Your task to perform on an android device: turn off sleep mode Image 0: 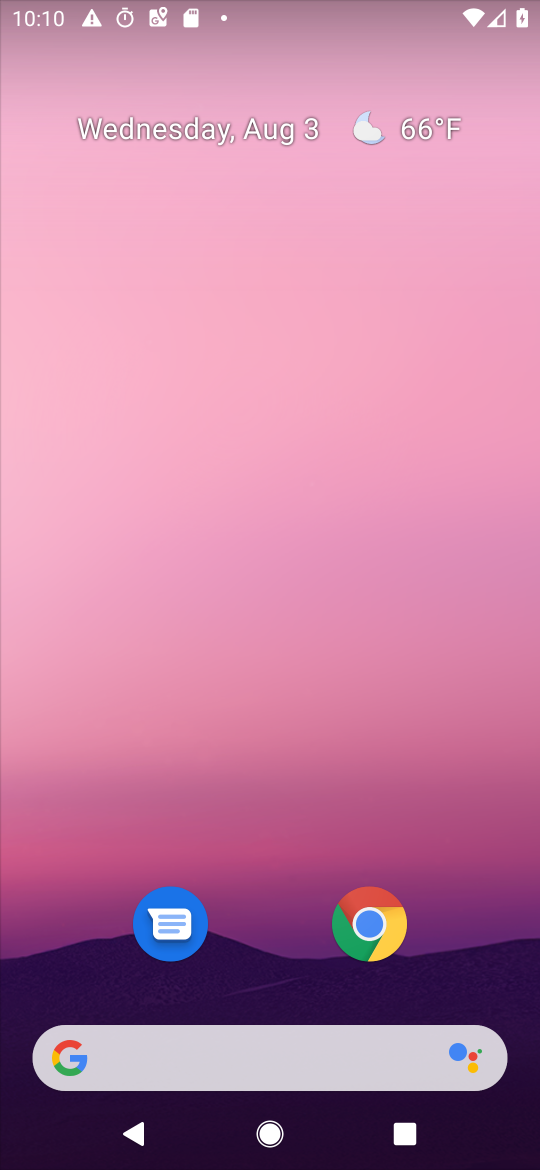
Step 0: press home button
Your task to perform on an android device: turn off sleep mode Image 1: 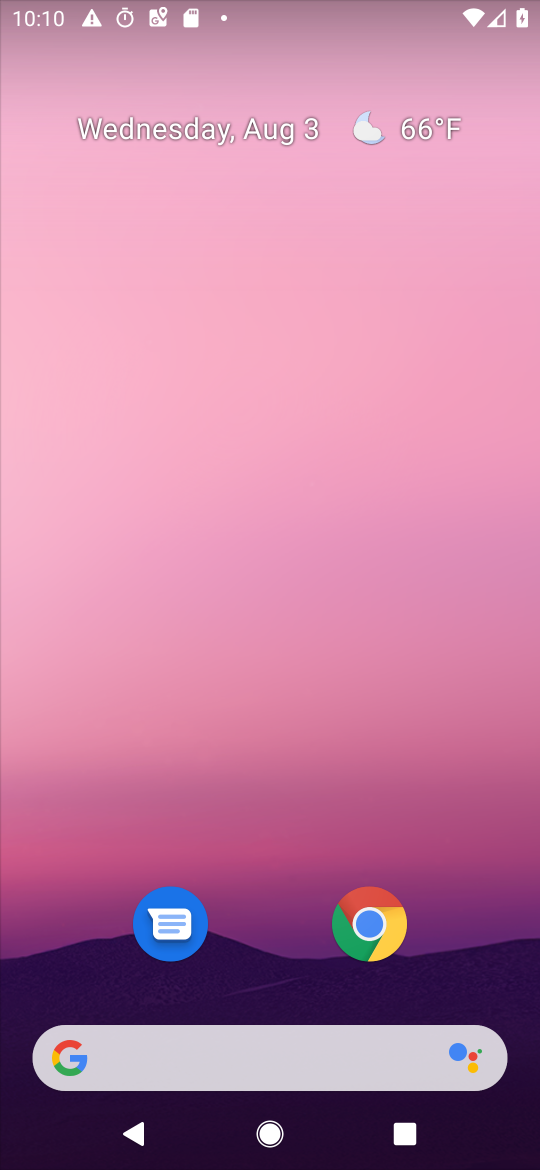
Step 1: drag from (269, 950) to (312, 13)
Your task to perform on an android device: turn off sleep mode Image 2: 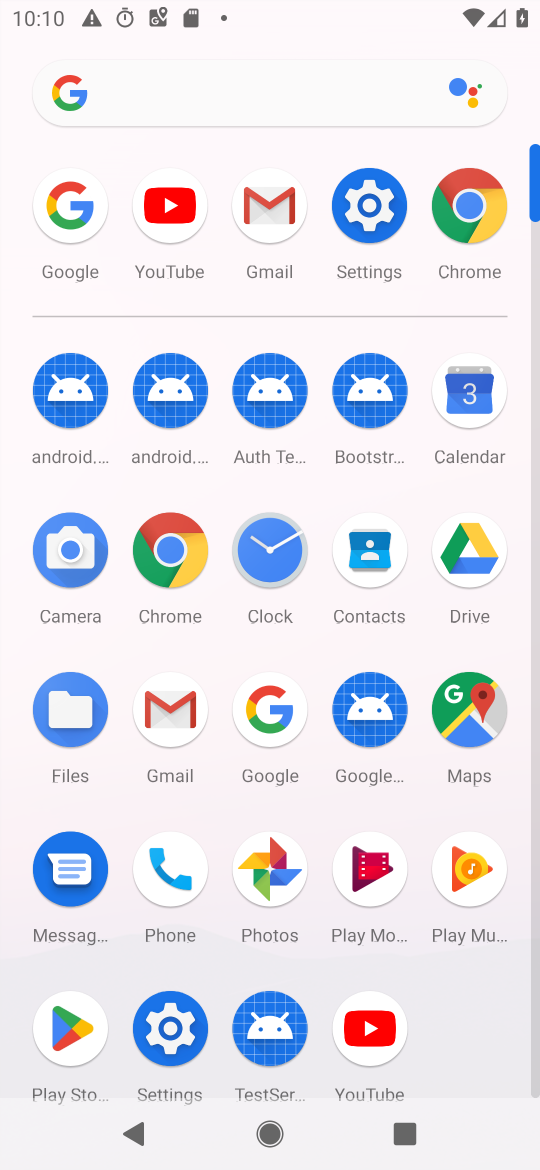
Step 2: click (370, 196)
Your task to perform on an android device: turn off sleep mode Image 3: 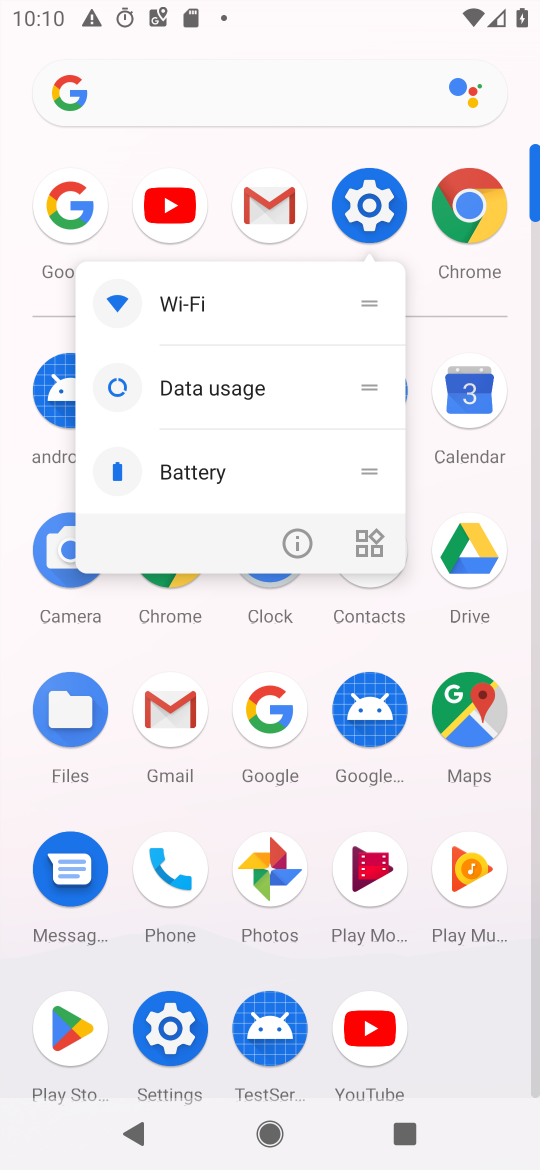
Step 3: click (367, 197)
Your task to perform on an android device: turn off sleep mode Image 4: 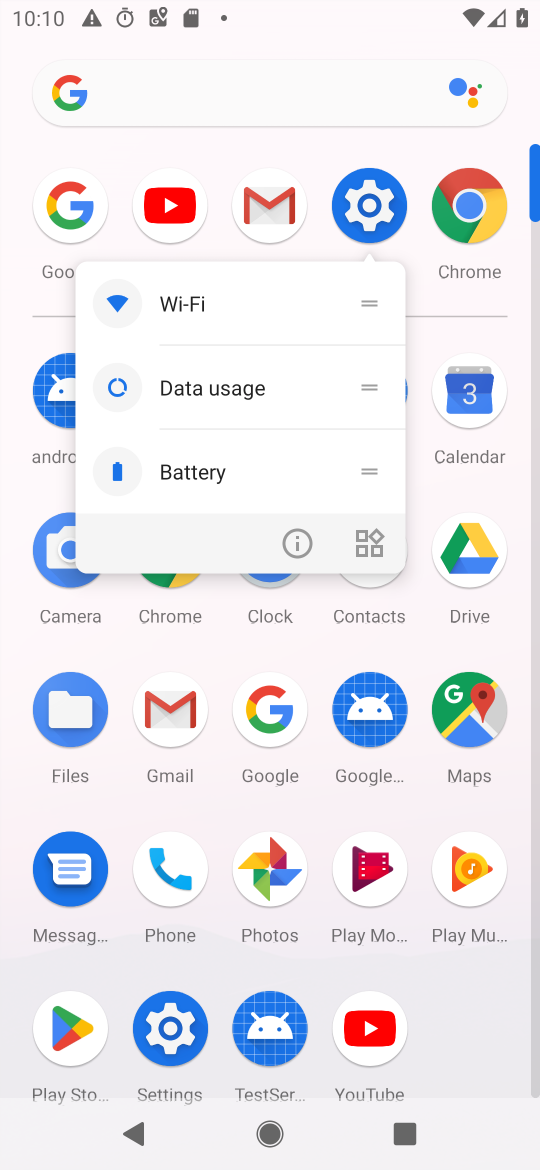
Step 4: click (367, 197)
Your task to perform on an android device: turn off sleep mode Image 5: 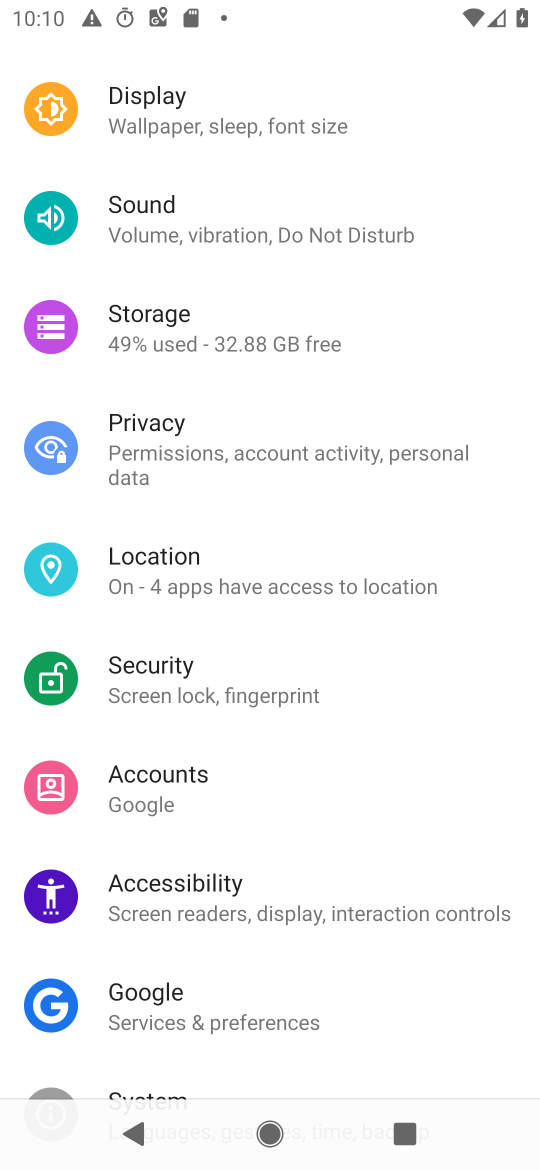
Step 5: click (204, 103)
Your task to perform on an android device: turn off sleep mode Image 6: 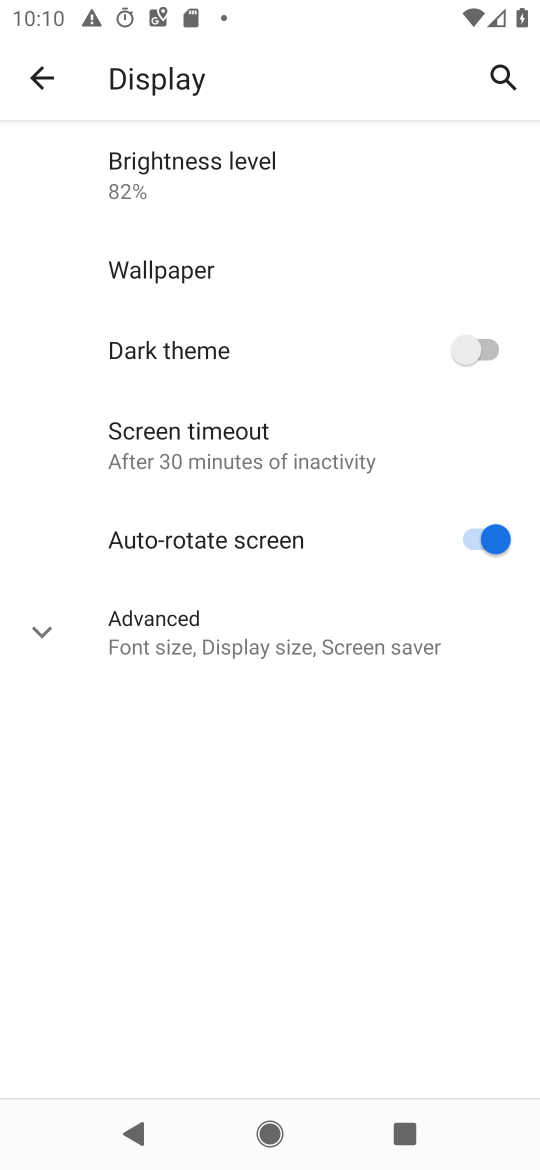
Step 6: click (47, 616)
Your task to perform on an android device: turn off sleep mode Image 7: 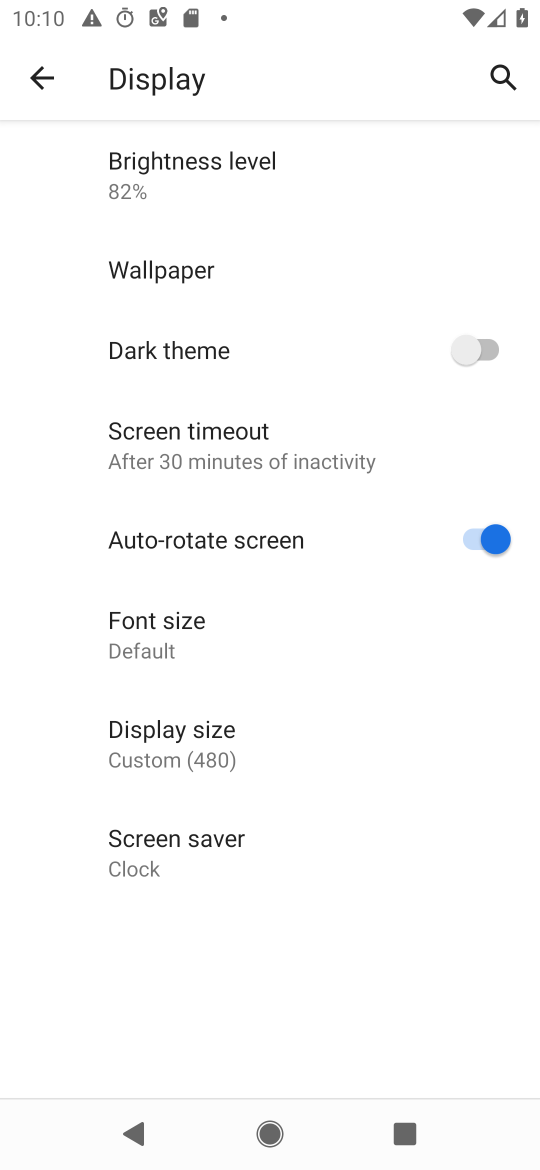
Step 7: task complete